Your task to perform on an android device: Go to Reddit.com Image 0: 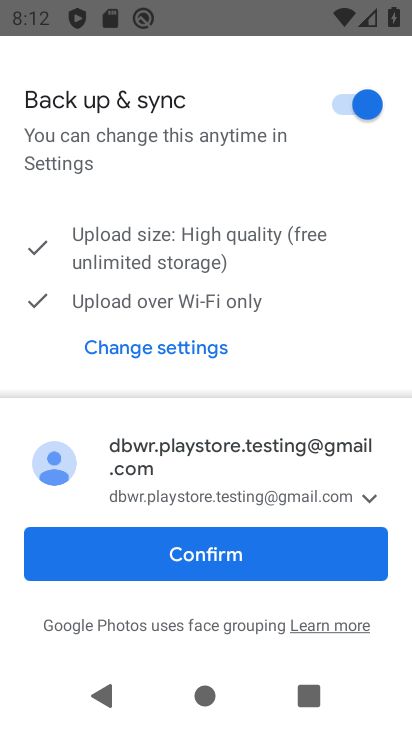
Step 0: click (219, 565)
Your task to perform on an android device: Go to Reddit.com Image 1: 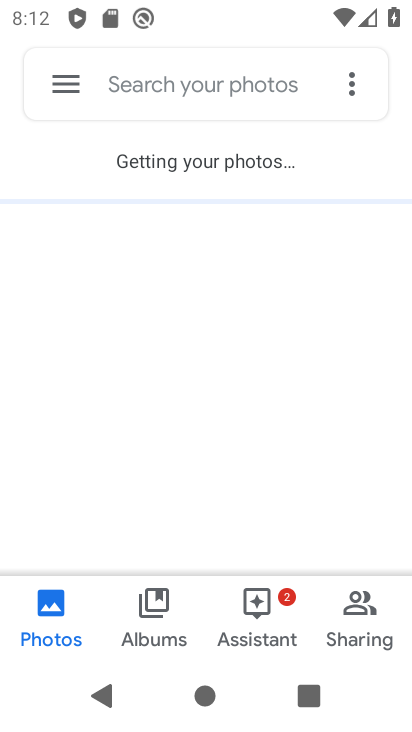
Step 1: press home button
Your task to perform on an android device: Go to Reddit.com Image 2: 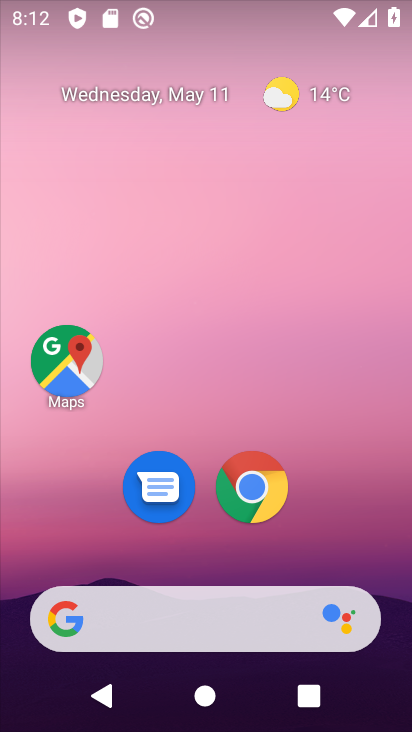
Step 2: click (246, 521)
Your task to perform on an android device: Go to Reddit.com Image 3: 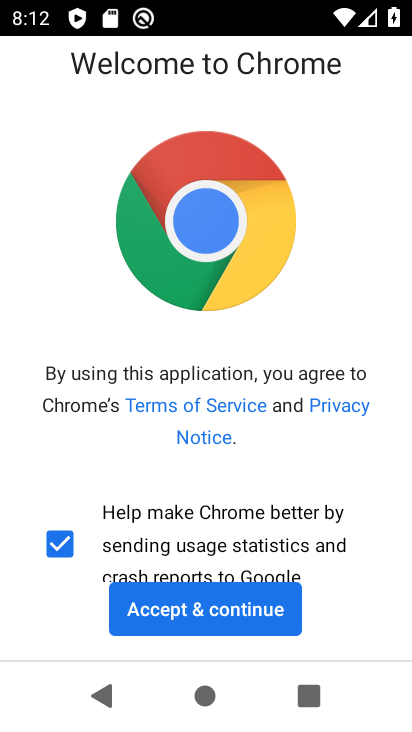
Step 3: click (209, 617)
Your task to perform on an android device: Go to Reddit.com Image 4: 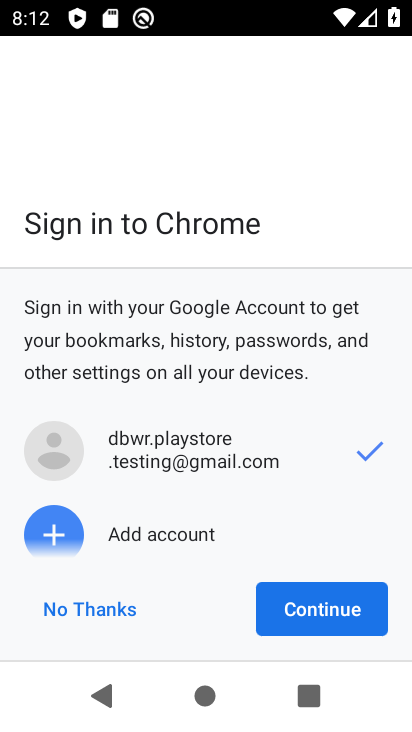
Step 4: click (305, 624)
Your task to perform on an android device: Go to Reddit.com Image 5: 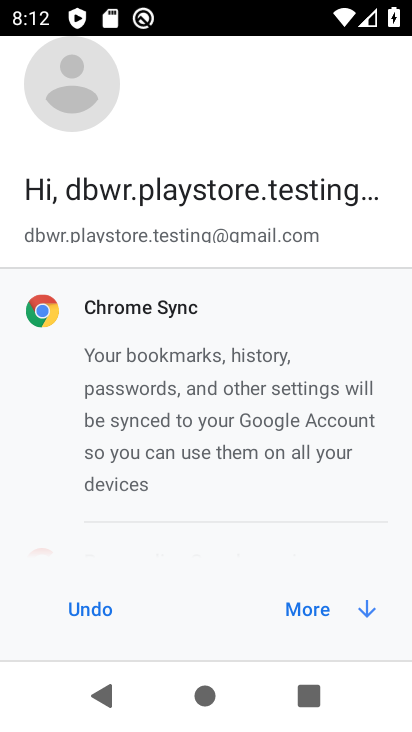
Step 5: click (317, 618)
Your task to perform on an android device: Go to Reddit.com Image 6: 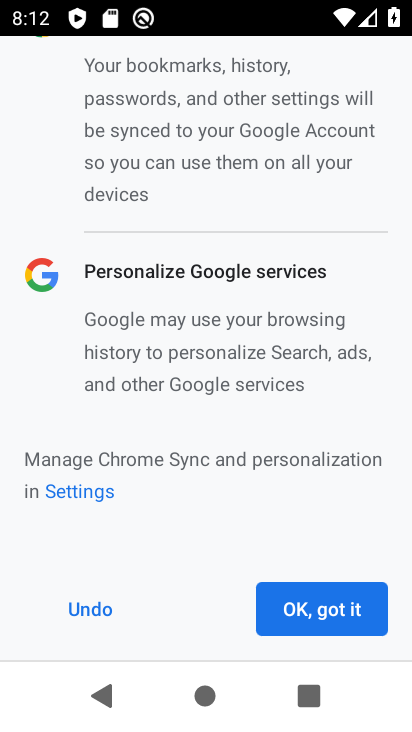
Step 6: click (317, 618)
Your task to perform on an android device: Go to Reddit.com Image 7: 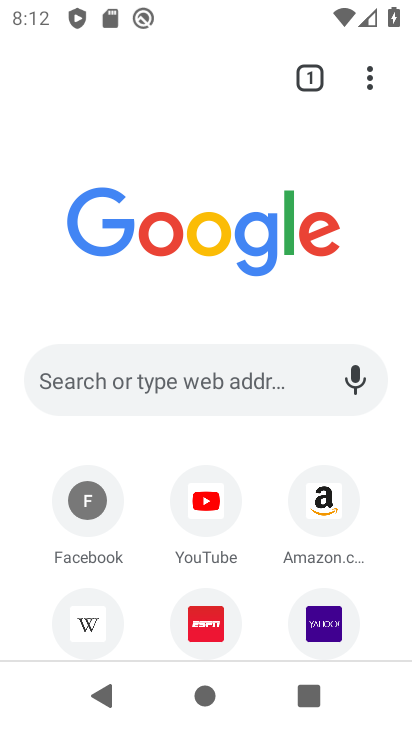
Step 7: click (200, 371)
Your task to perform on an android device: Go to Reddit.com Image 8: 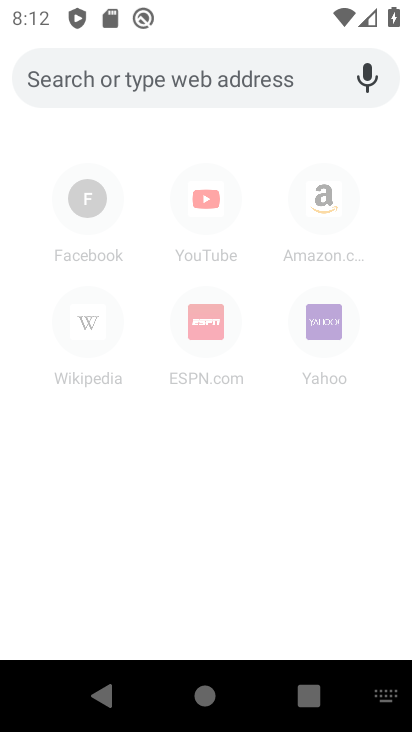
Step 8: click (126, 82)
Your task to perform on an android device: Go to Reddit.com Image 9: 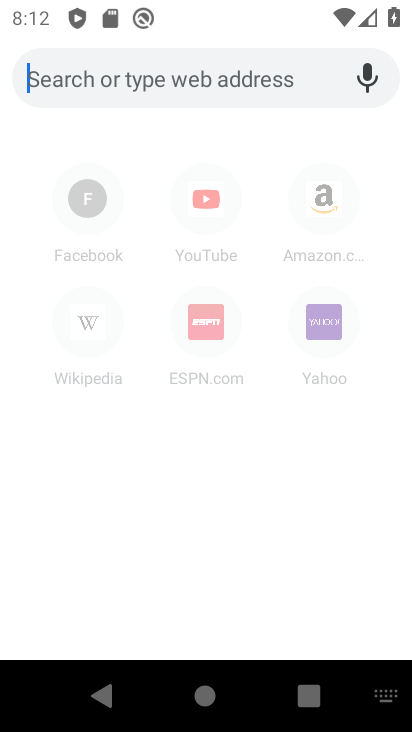
Step 9: type "www.reddit.com"
Your task to perform on an android device: Go to Reddit.com Image 10: 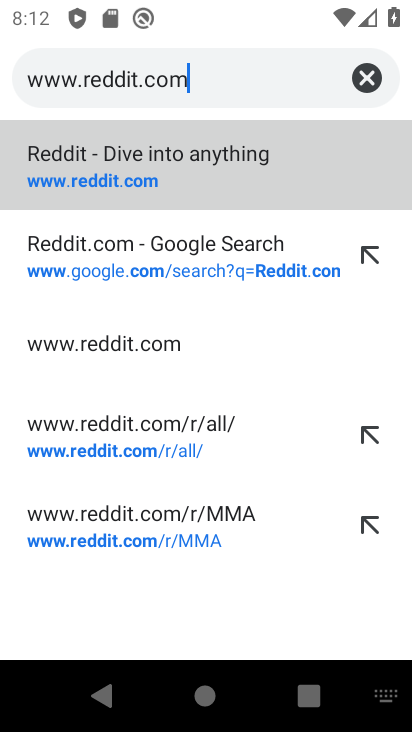
Step 10: click (131, 184)
Your task to perform on an android device: Go to Reddit.com Image 11: 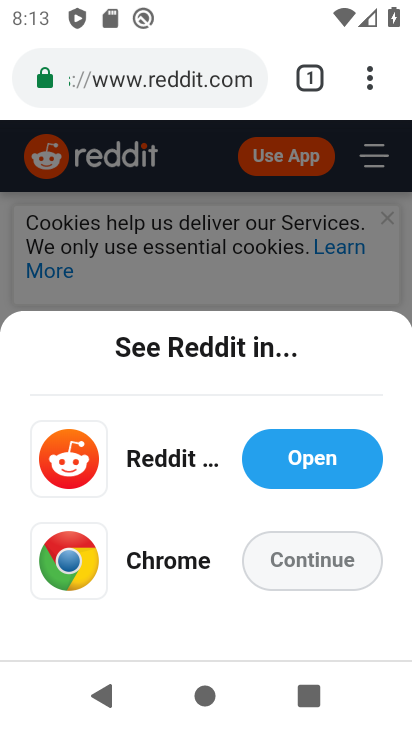
Step 11: task complete